Your task to perform on an android device: snooze an email in the gmail app Image 0: 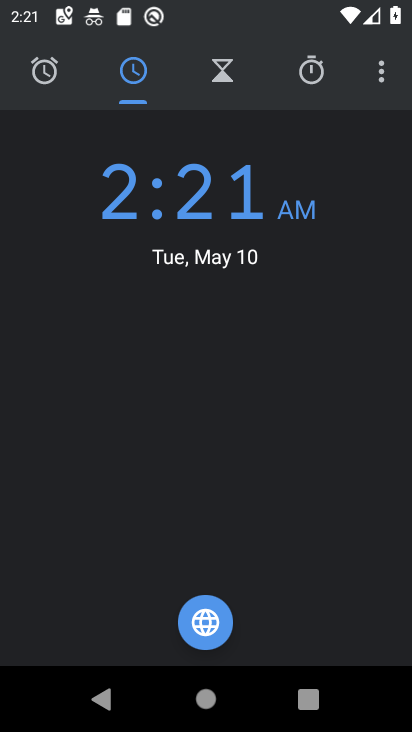
Step 0: press home button
Your task to perform on an android device: snooze an email in the gmail app Image 1: 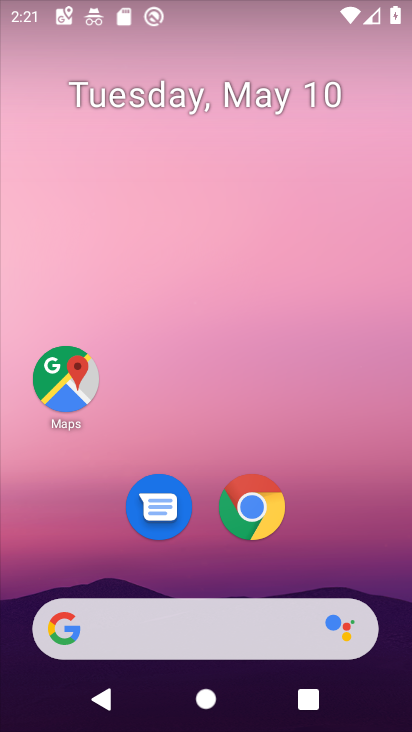
Step 1: drag from (129, 531) to (201, 206)
Your task to perform on an android device: snooze an email in the gmail app Image 2: 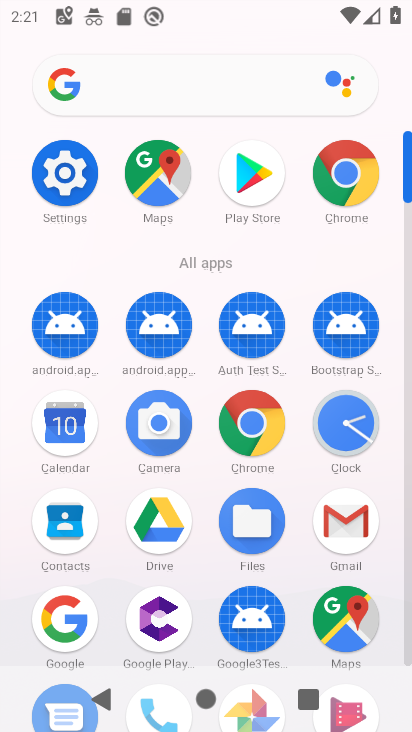
Step 2: click (341, 517)
Your task to perform on an android device: snooze an email in the gmail app Image 3: 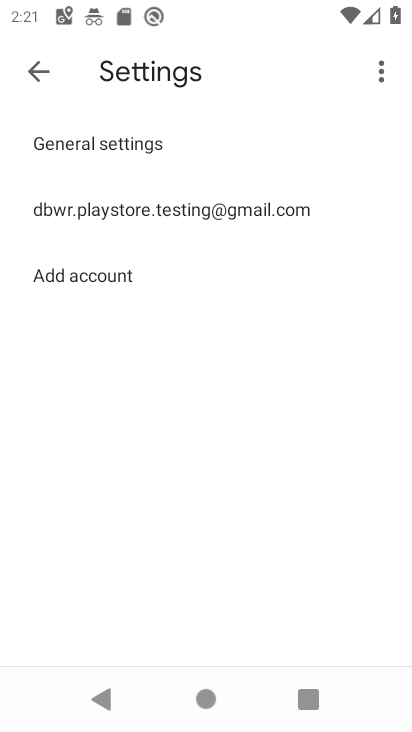
Step 3: click (158, 206)
Your task to perform on an android device: snooze an email in the gmail app Image 4: 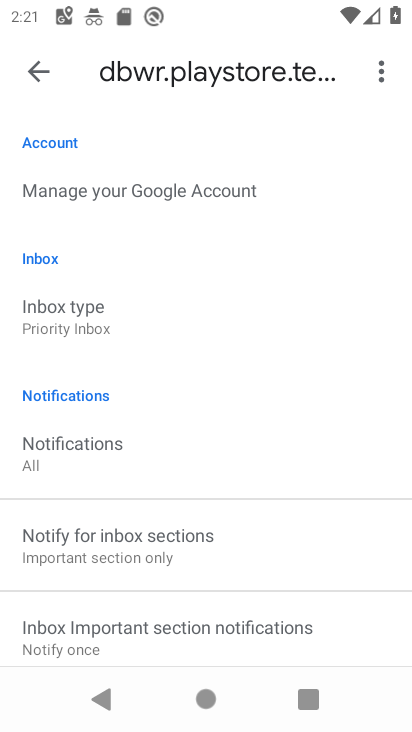
Step 4: click (48, 71)
Your task to perform on an android device: snooze an email in the gmail app Image 5: 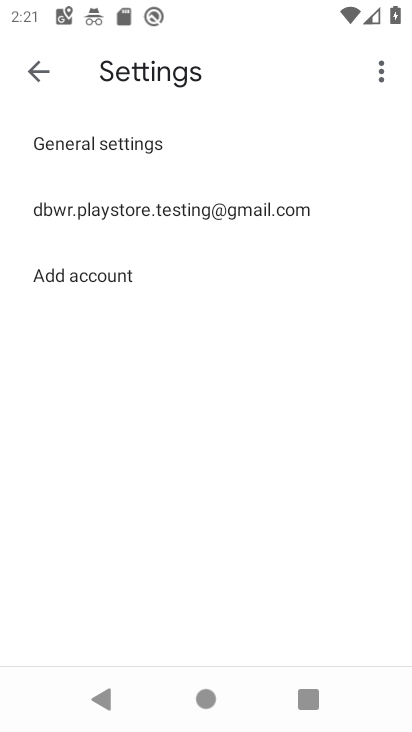
Step 5: click (48, 71)
Your task to perform on an android device: snooze an email in the gmail app Image 6: 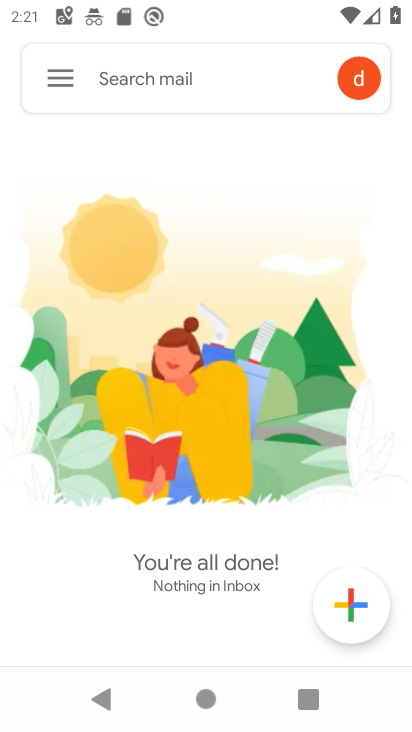
Step 6: click (64, 73)
Your task to perform on an android device: snooze an email in the gmail app Image 7: 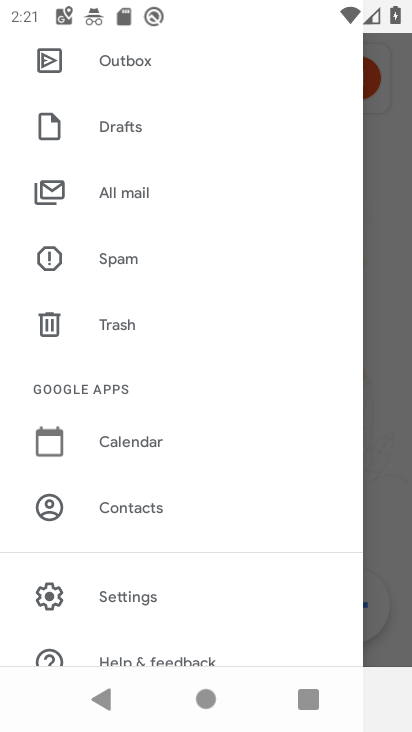
Step 7: click (131, 195)
Your task to perform on an android device: snooze an email in the gmail app Image 8: 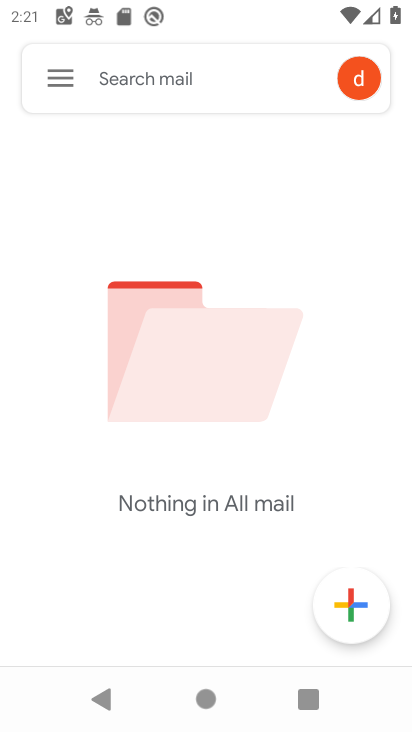
Step 8: task complete